Your task to perform on an android device: Open the stopwatch Image 0: 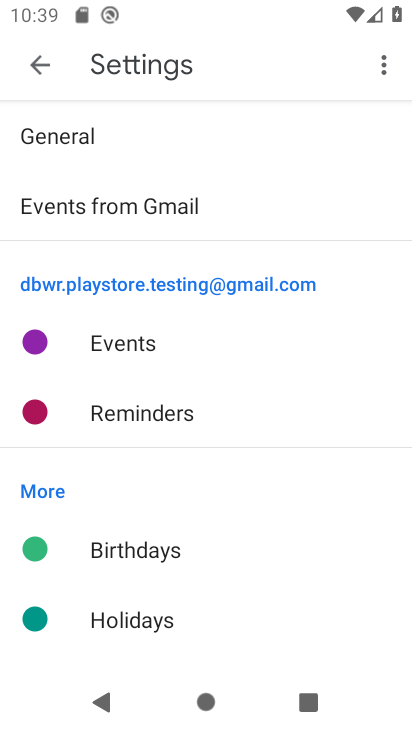
Step 0: press home button
Your task to perform on an android device: Open the stopwatch Image 1: 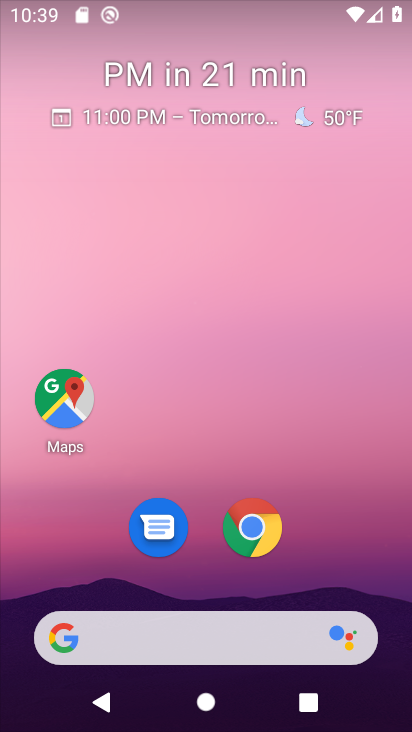
Step 1: drag from (369, 537) to (329, 110)
Your task to perform on an android device: Open the stopwatch Image 2: 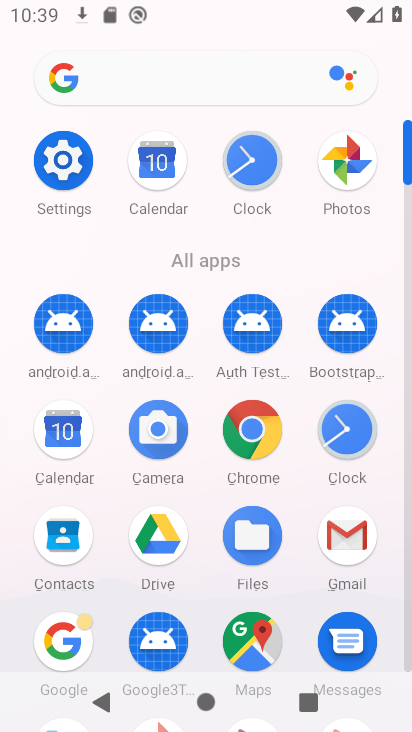
Step 2: click (255, 148)
Your task to perform on an android device: Open the stopwatch Image 3: 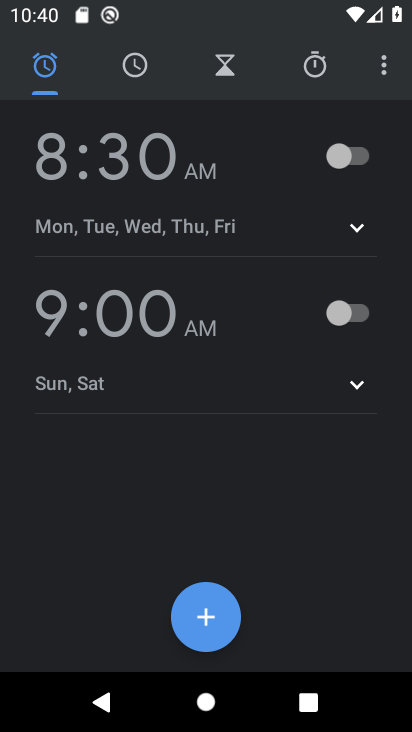
Step 3: click (386, 78)
Your task to perform on an android device: Open the stopwatch Image 4: 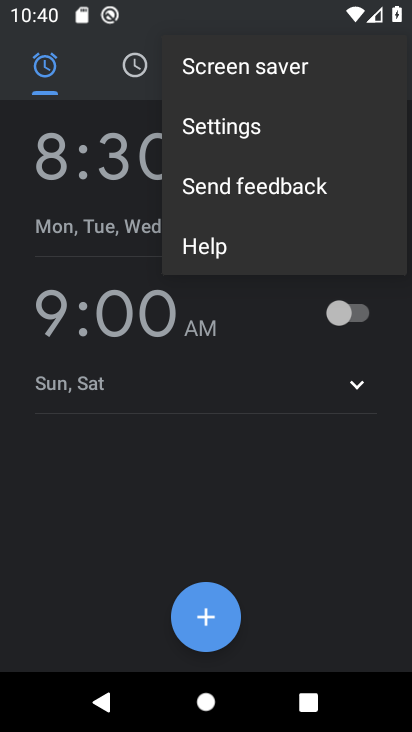
Step 4: click (264, 498)
Your task to perform on an android device: Open the stopwatch Image 5: 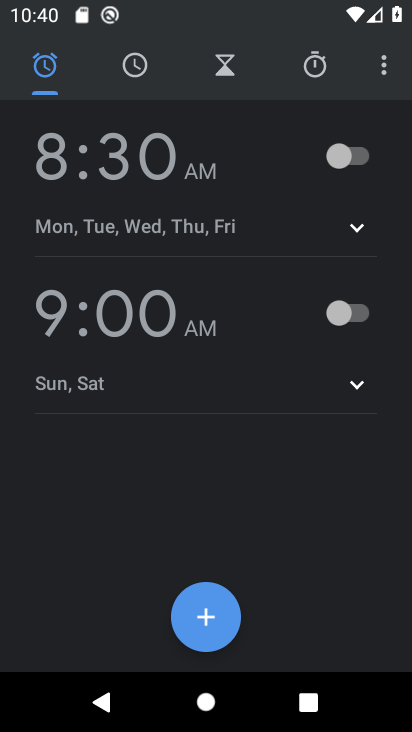
Step 5: click (312, 69)
Your task to perform on an android device: Open the stopwatch Image 6: 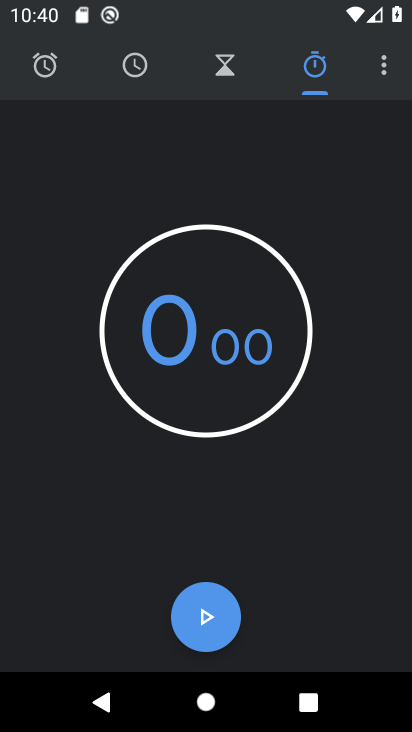
Step 6: task complete